Your task to perform on an android device: Open wifi settings Image 0: 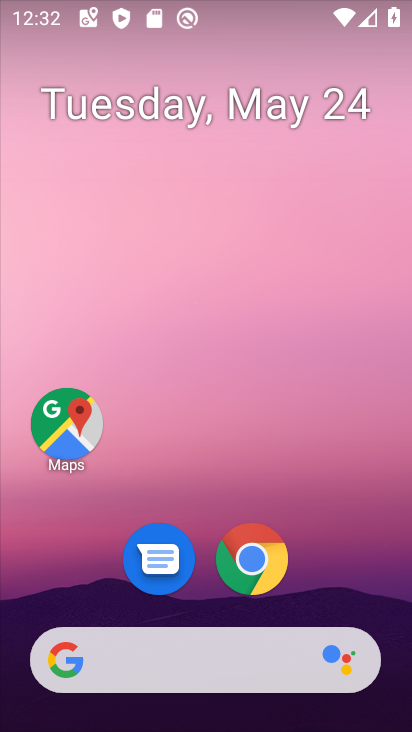
Step 0: drag from (315, 682) to (156, 102)
Your task to perform on an android device: Open wifi settings Image 1: 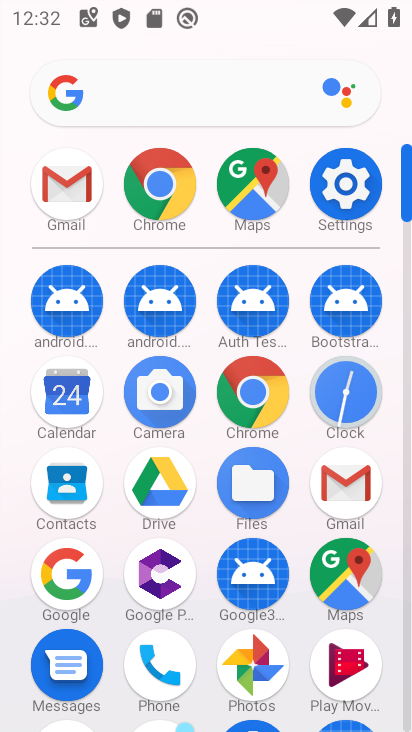
Step 1: click (357, 183)
Your task to perform on an android device: Open wifi settings Image 2: 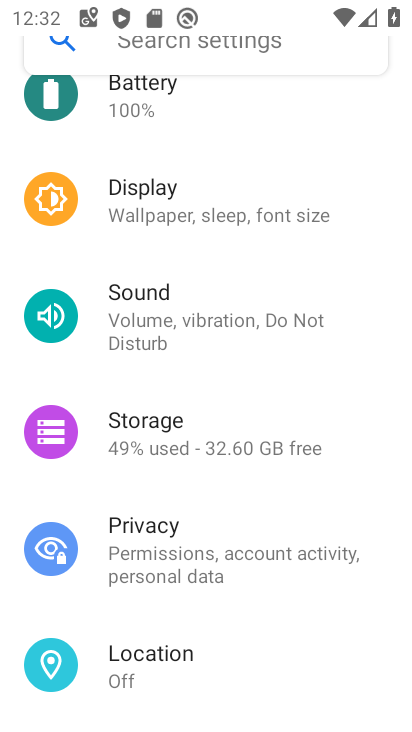
Step 2: drag from (225, 579) to (224, 620)
Your task to perform on an android device: Open wifi settings Image 3: 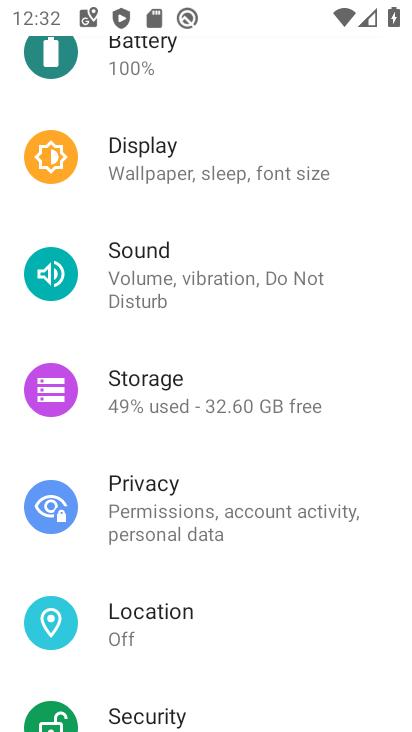
Step 3: click (183, 466)
Your task to perform on an android device: Open wifi settings Image 4: 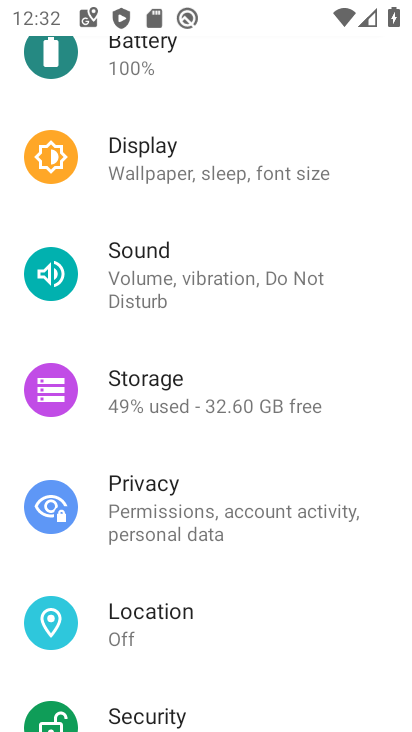
Step 4: click (201, 570)
Your task to perform on an android device: Open wifi settings Image 5: 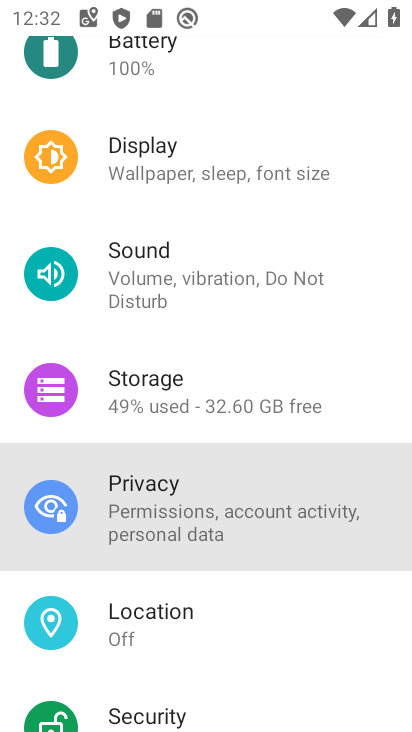
Step 5: drag from (197, 189) to (216, 541)
Your task to perform on an android device: Open wifi settings Image 6: 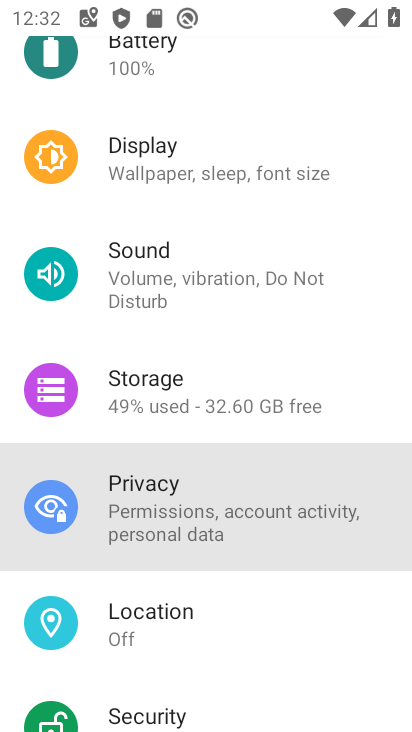
Step 6: drag from (211, 153) to (202, 657)
Your task to perform on an android device: Open wifi settings Image 7: 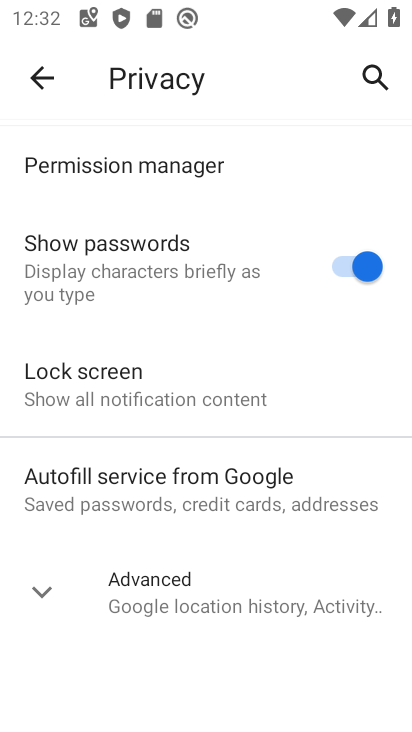
Step 7: drag from (126, 217) to (145, 606)
Your task to perform on an android device: Open wifi settings Image 8: 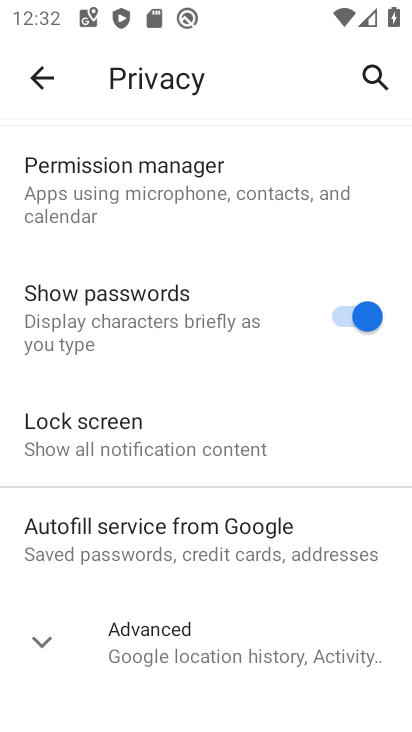
Step 8: press back button
Your task to perform on an android device: Open wifi settings Image 9: 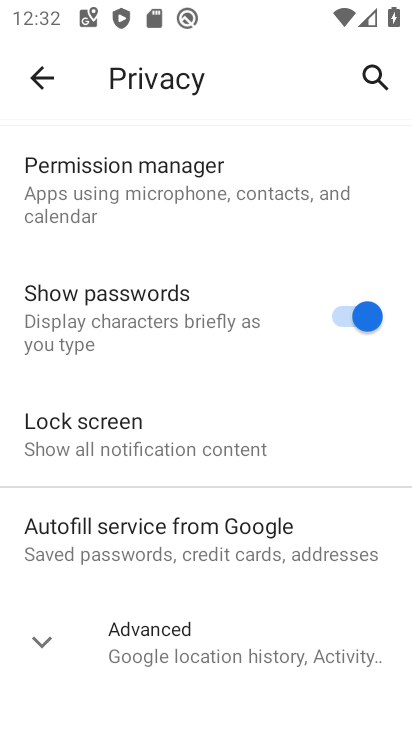
Step 9: drag from (101, 364) to (116, 461)
Your task to perform on an android device: Open wifi settings Image 10: 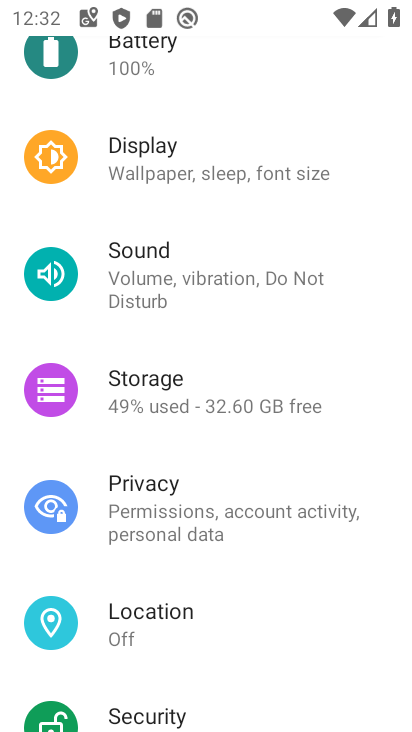
Step 10: click (30, 70)
Your task to perform on an android device: Open wifi settings Image 11: 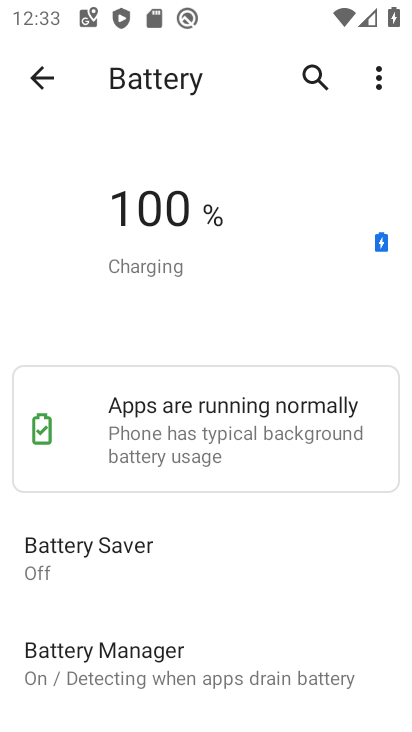
Step 11: click (53, 88)
Your task to perform on an android device: Open wifi settings Image 12: 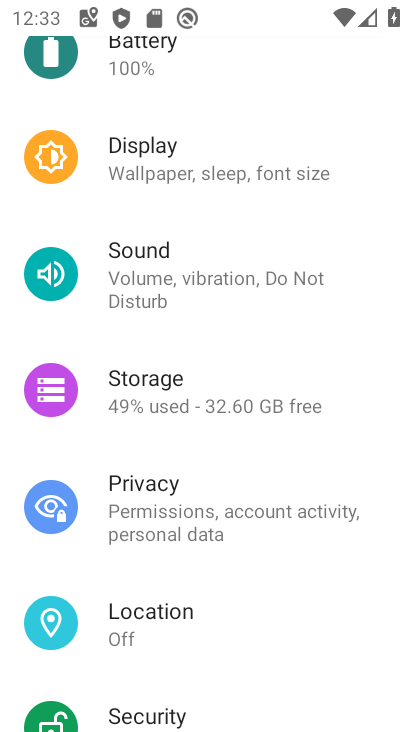
Step 12: drag from (213, 382) to (224, 469)
Your task to perform on an android device: Open wifi settings Image 13: 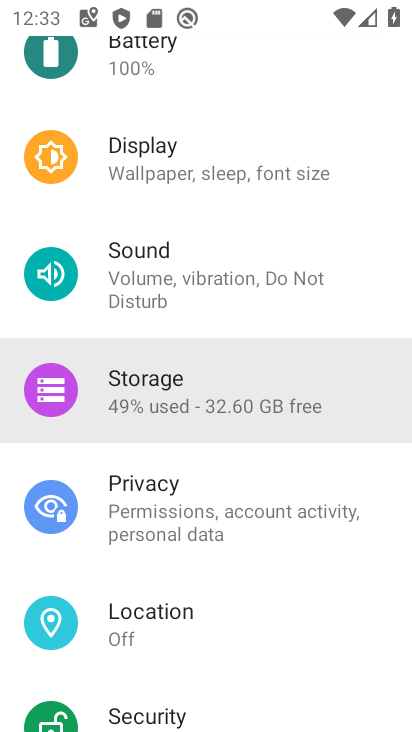
Step 13: drag from (195, 175) to (174, 574)
Your task to perform on an android device: Open wifi settings Image 14: 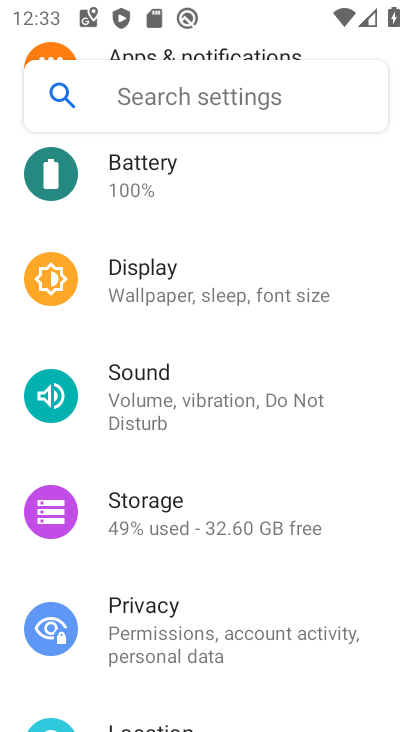
Step 14: drag from (176, 296) to (136, 628)
Your task to perform on an android device: Open wifi settings Image 15: 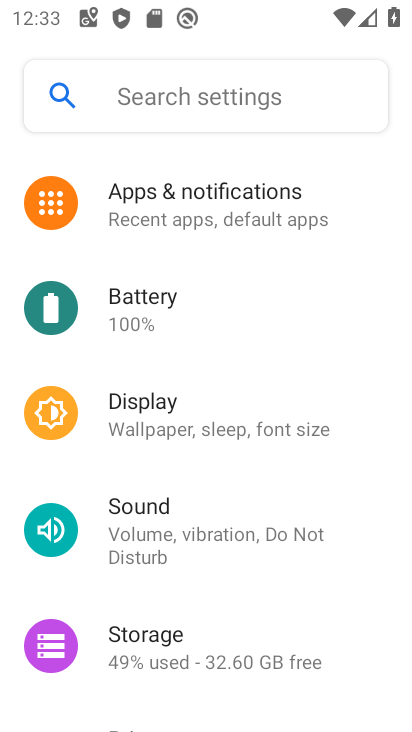
Step 15: drag from (158, 254) to (180, 644)
Your task to perform on an android device: Open wifi settings Image 16: 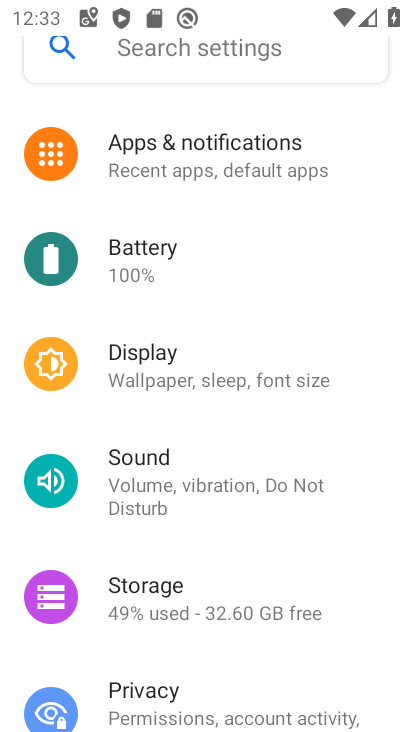
Step 16: click (127, 421)
Your task to perform on an android device: Open wifi settings Image 17: 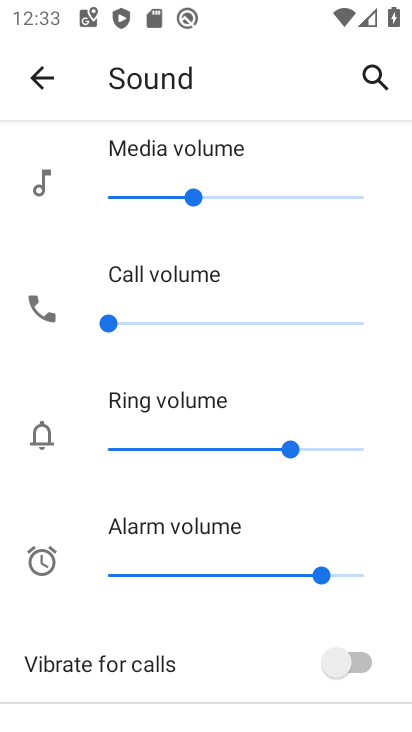
Step 17: drag from (213, 573) to (198, 152)
Your task to perform on an android device: Open wifi settings Image 18: 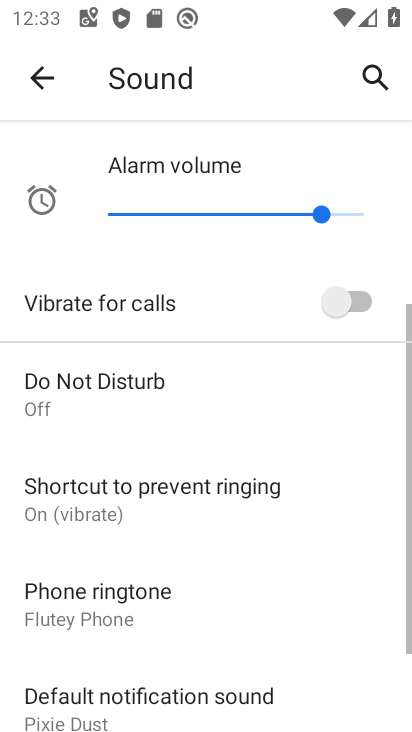
Step 18: drag from (198, 359) to (176, 89)
Your task to perform on an android device: Open wifi settings Image 19: 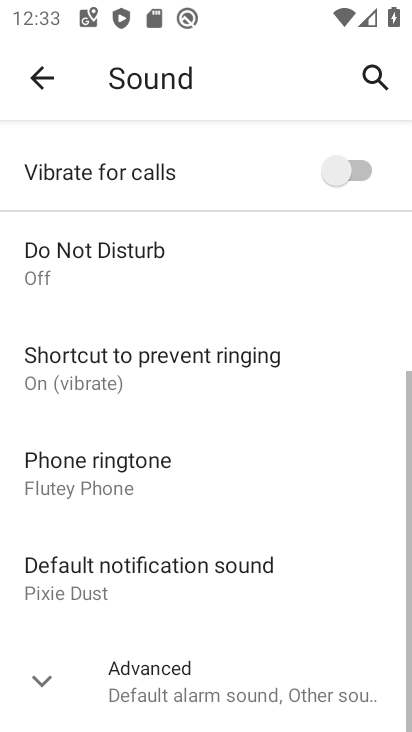
Step 19: click (190, 22)
Your task to perform on an android device: Open wifi settings Image 20: 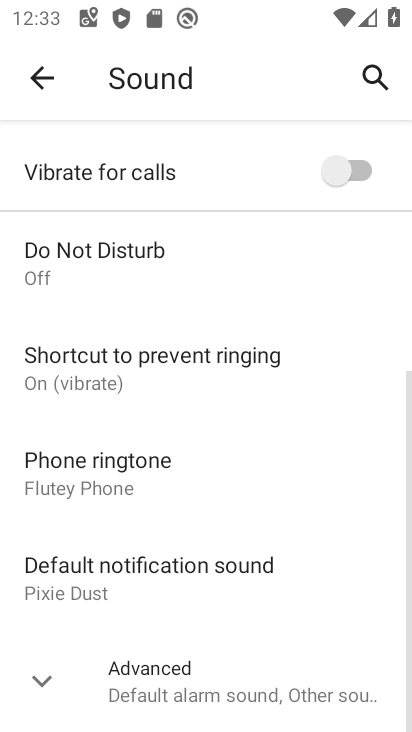
Step 20: drag from (181, 430) to (195, 85)
Your task to perform on an android device: Open wifi settings Image 21: 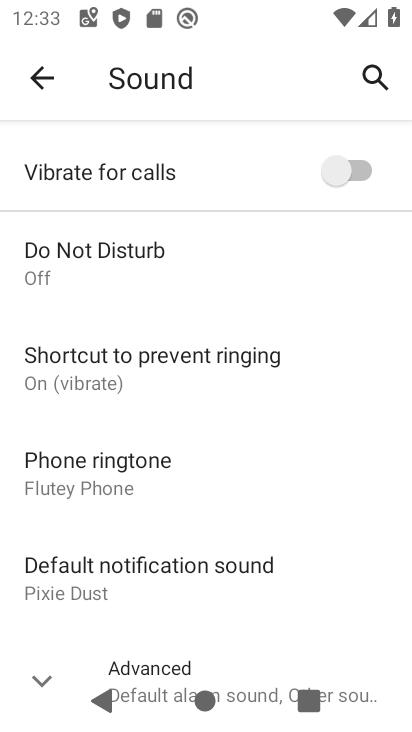
Step 21: drag from (204, 447) to (197, 149)
Your task to perform on an android device: Open wifi settings Image 22: 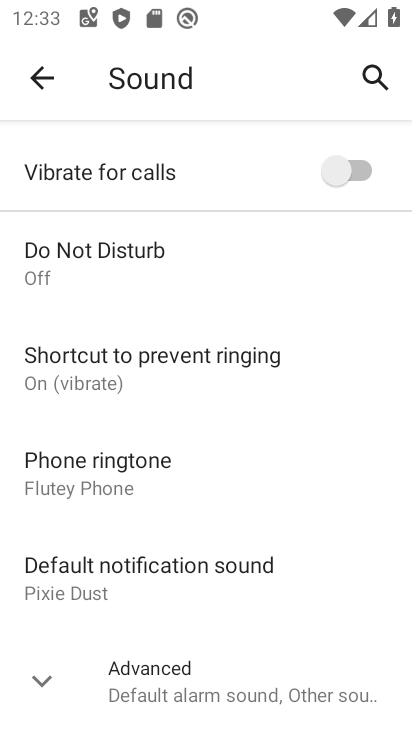
Step 22: click (34, 91)
Your task to perform on an android device: Open wifi settings Image 23: 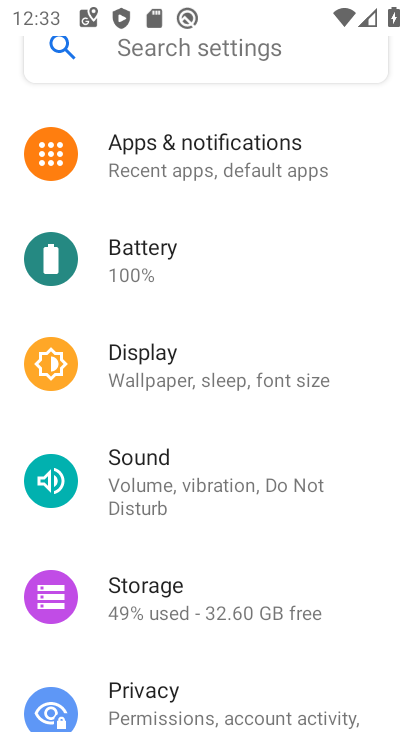
Step 23: drag from (209, 272) to (210, 569)
Your task to perform on an android device: Open wifi settings Image 24: 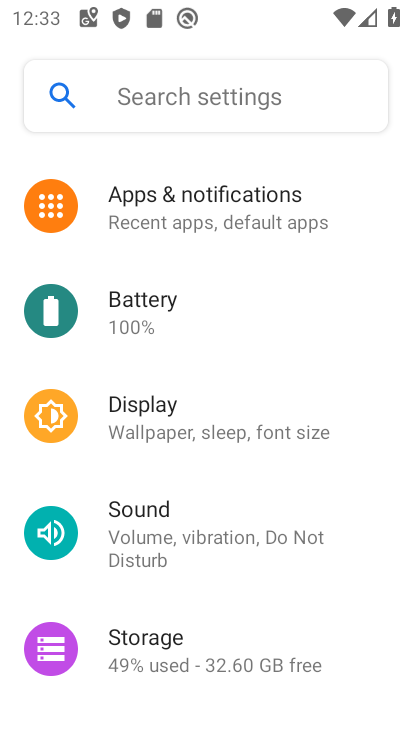
Step 24: drag from (217, 201) to (187, 581)
Your task to perform on an android device: Open wifi settings Image 25: 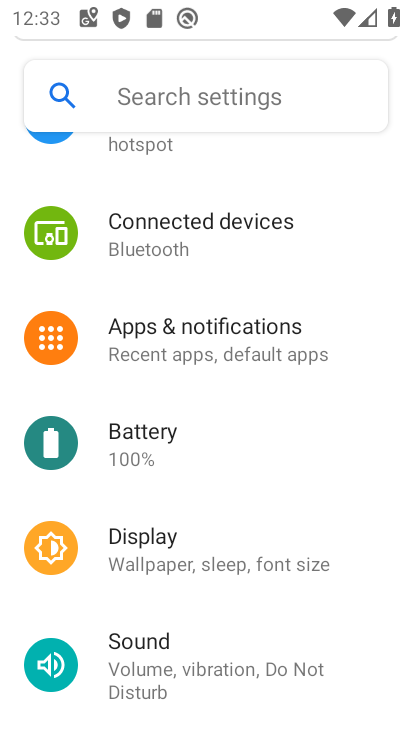
Step 25: drag from (187, 234) to (187, 517)
Your task to perform on an android device: Open wifi settings Image 26: 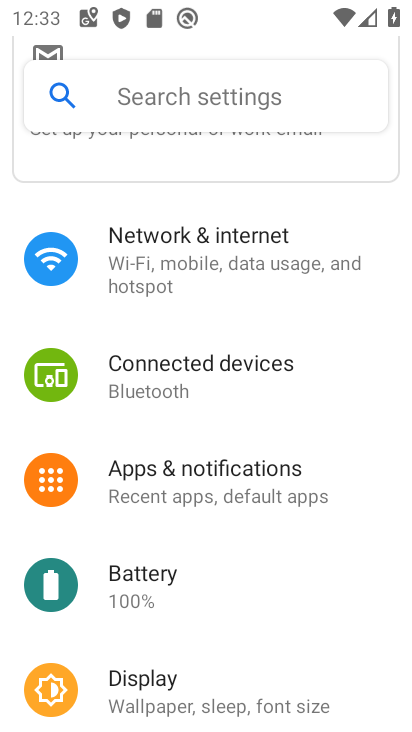
Step 26: click (196, 259)
Your task to perform on an android device: Open wifi settings Image 27: 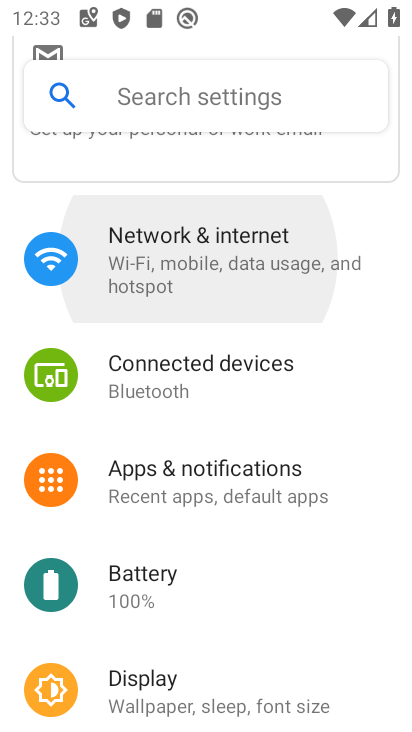
Step 27: click (201, 259)
Your task to perform on an android device: Open wifi settings Image 28: 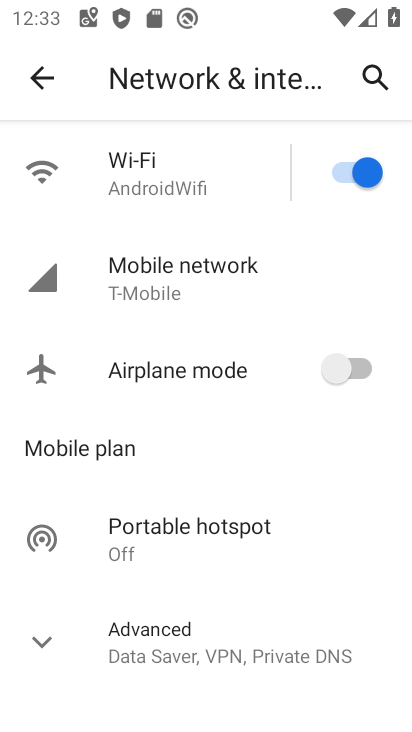
Step 28: task complete